Your task to perform on an android device: search for starred emails in the gmail app Image 0: 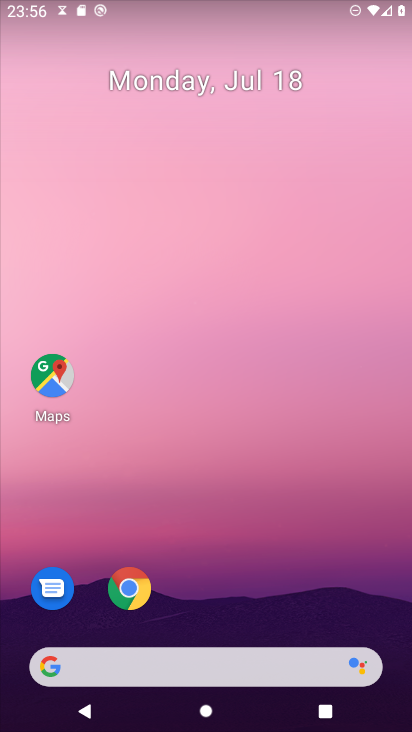
Step 0: press home button
Your task to perform on an android device: search for starred emails in the gmail app Image 1: 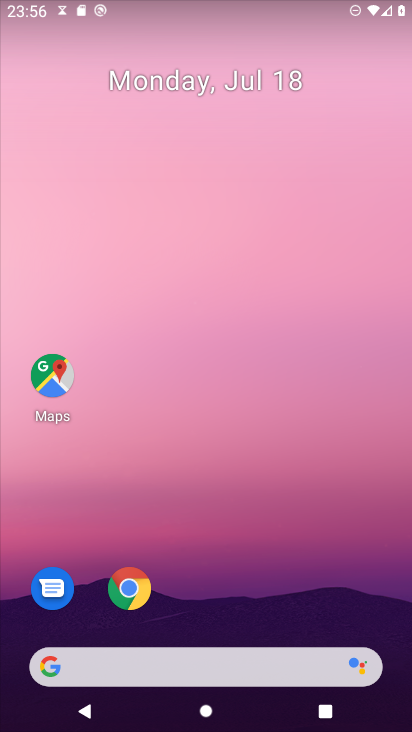
Step 1: drag from (294, 568) to (321, 83)
Your task to perform on an android device: search for starred emails in the gmail app Image 2: 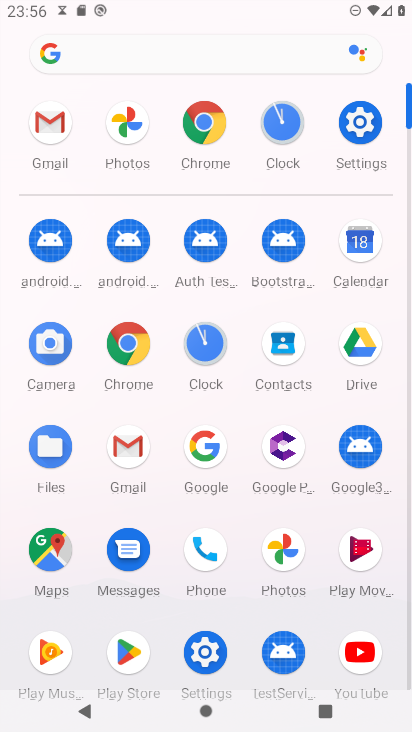
Step 2: click (53, 127)
Your task to perform on an android device: search for starred emails in the gmail app Image 3: 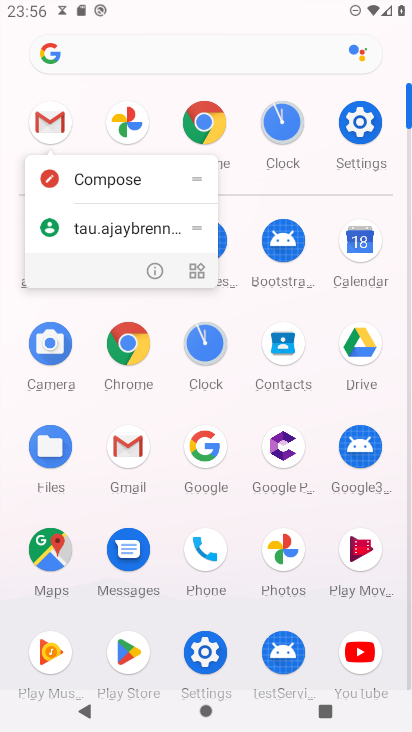
Step 3: click (41, 120)
Your task to perform on an android device: search for starred emails in the gmail app Image 4: 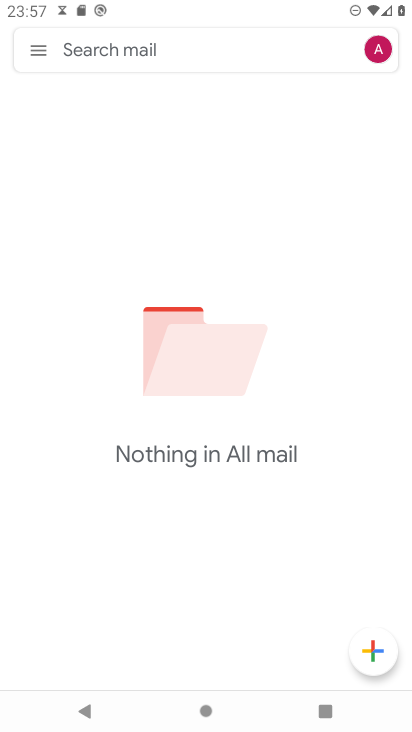
Step 4: click (44, 45)
Your task to perform on an android device: search for starred emails in the gmail app Image 5: 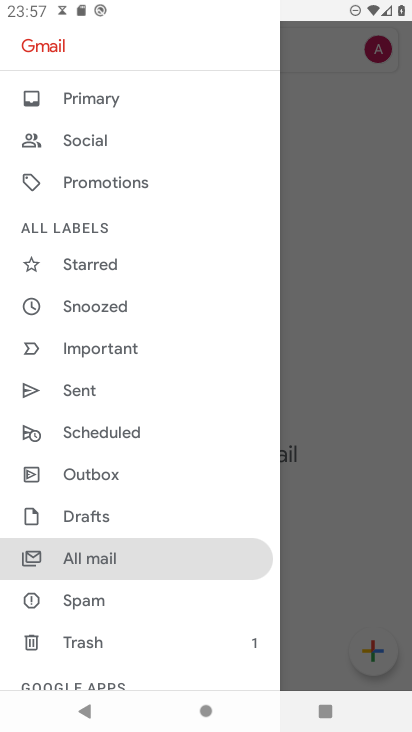
Step 5: click (111, 268)
Your task to perform on an android device: search for starred emails in the gmail app Image 6: 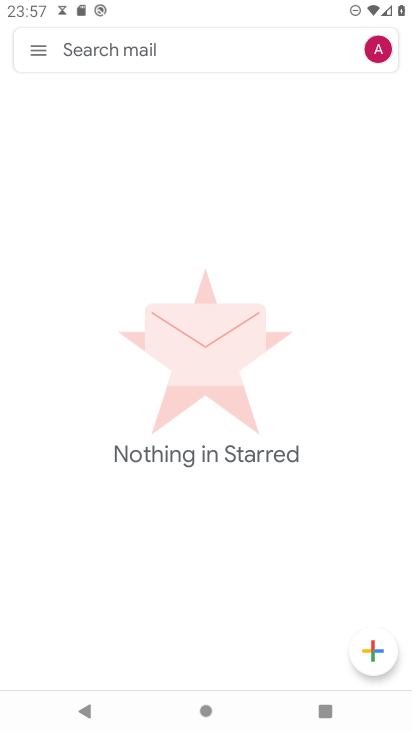
Step 6: task complete